Your task to perform on an android device: open app "VLC for Android" (install if not already installed) Image 0: 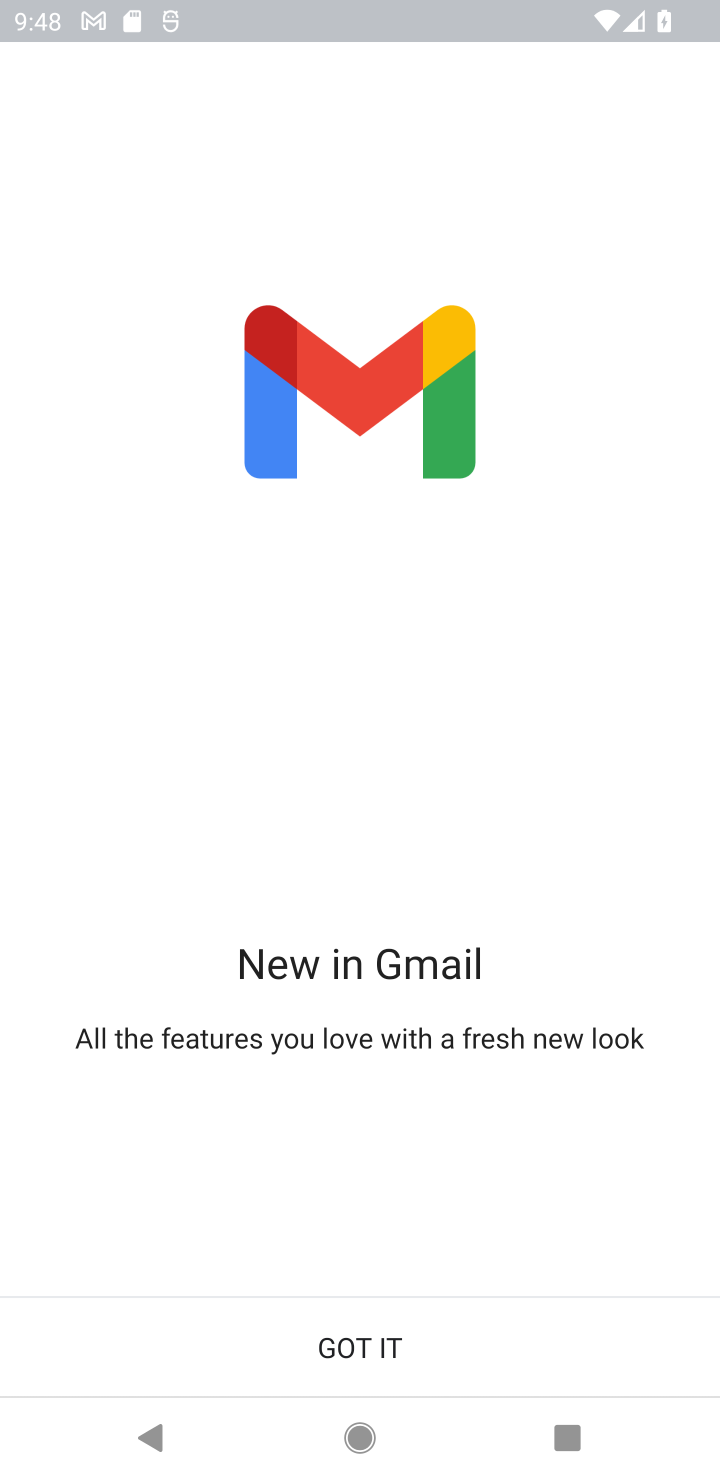
Step 0: press home button
Your task to perform on an android device: open app "VLC for Android" (install if not already installed) Image 1: 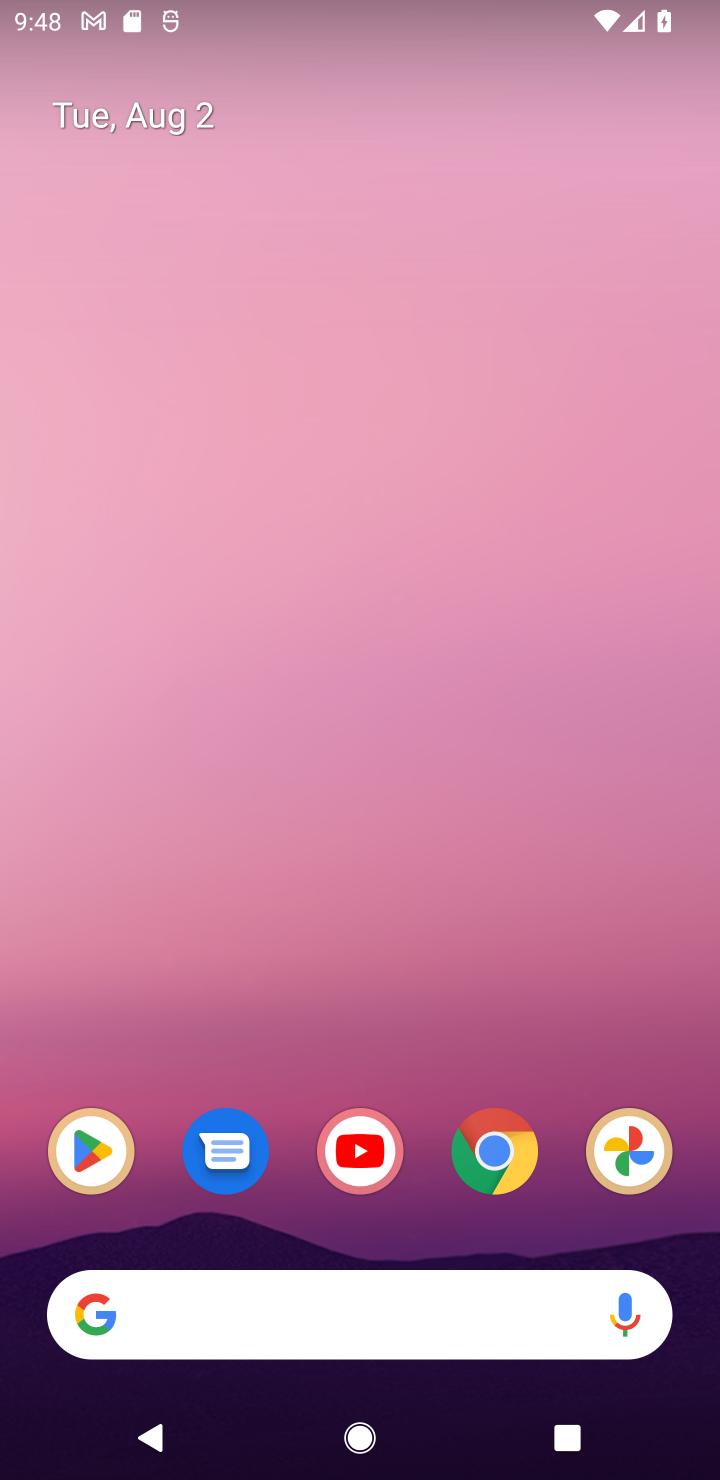
Step 1: drag from (371, 1304) to (371, 139)
Your task to perform on an android device: open app "VLC for Android" (install if not already installed) Image 2: 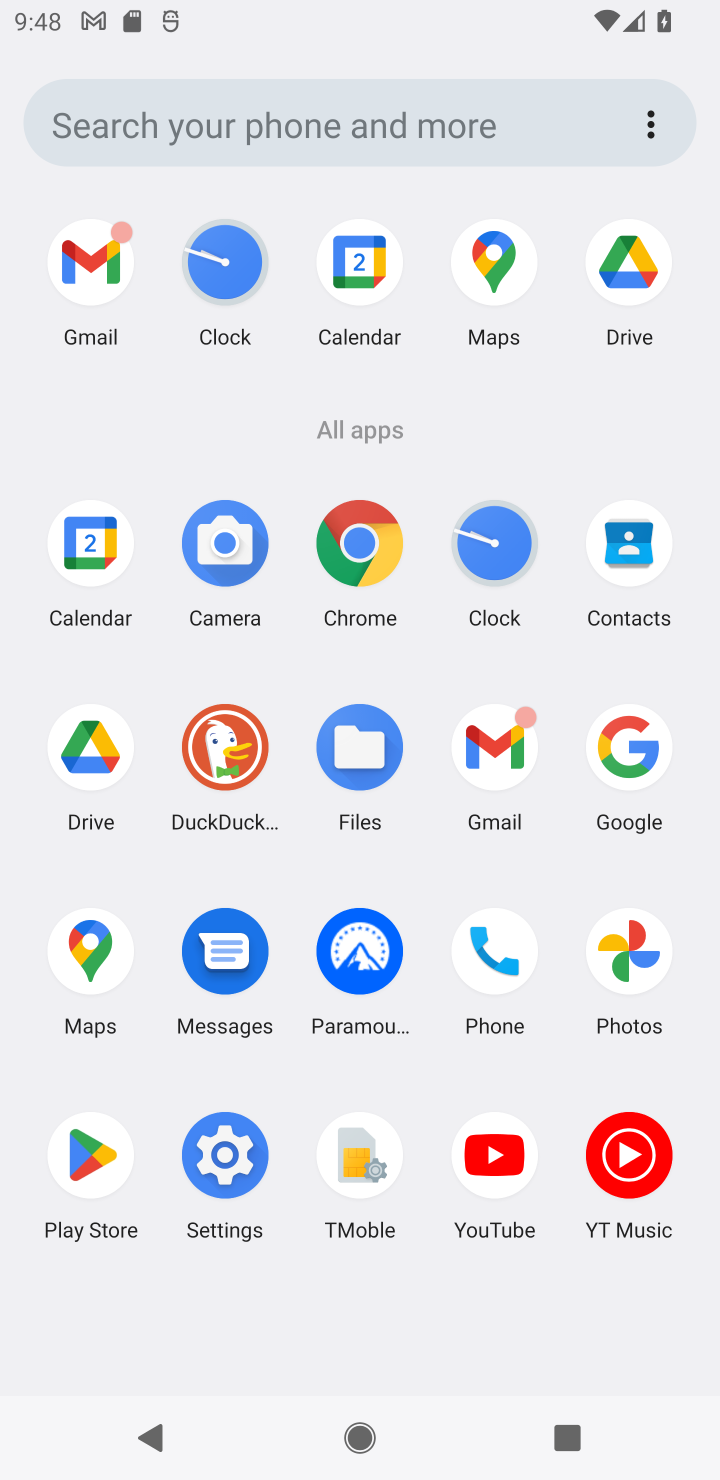
Step 2: click (109, 1151)
Your task to perform on an android device: open app "VLC for Android" (install if not already installed) Image 3: 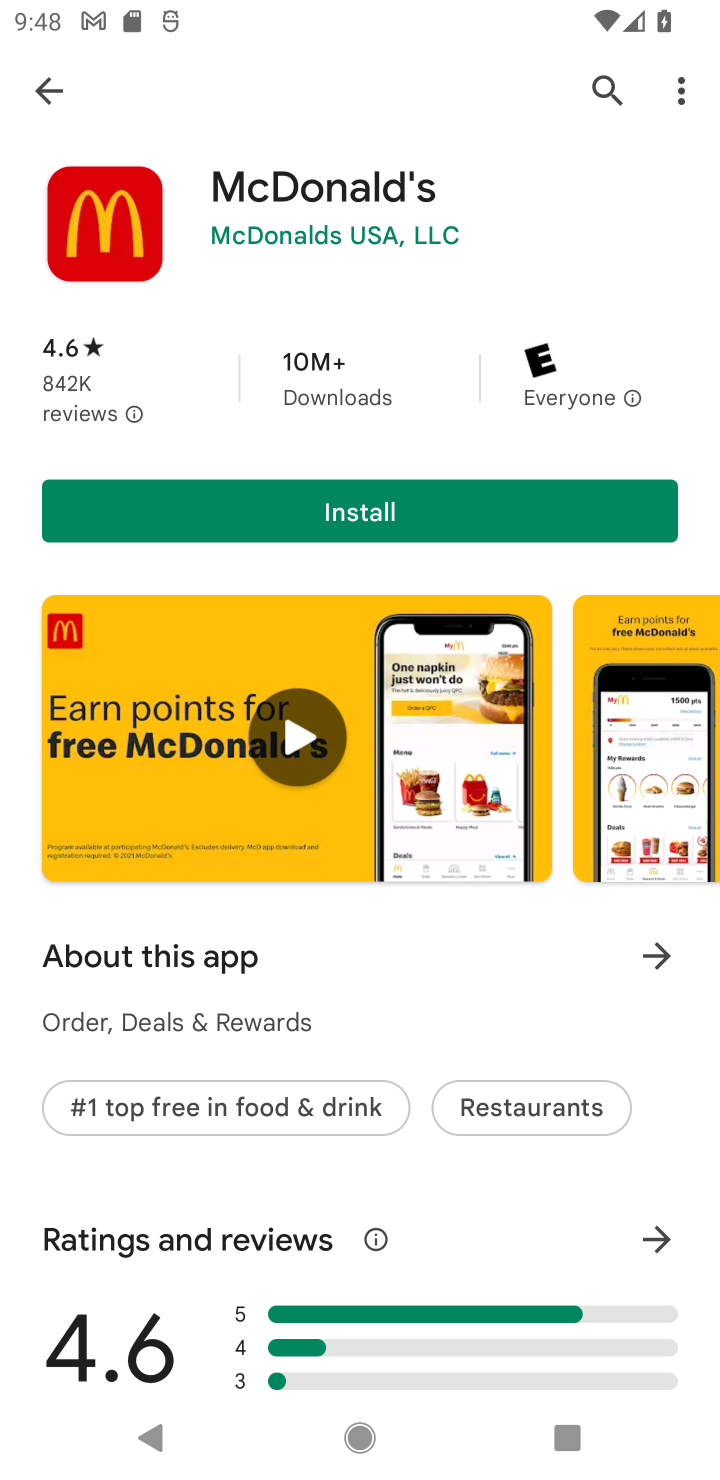
Step 3: click (73, 82)
Your task to perform on an android device: open app "VLC for Android" (install if not already installed) Image 4: 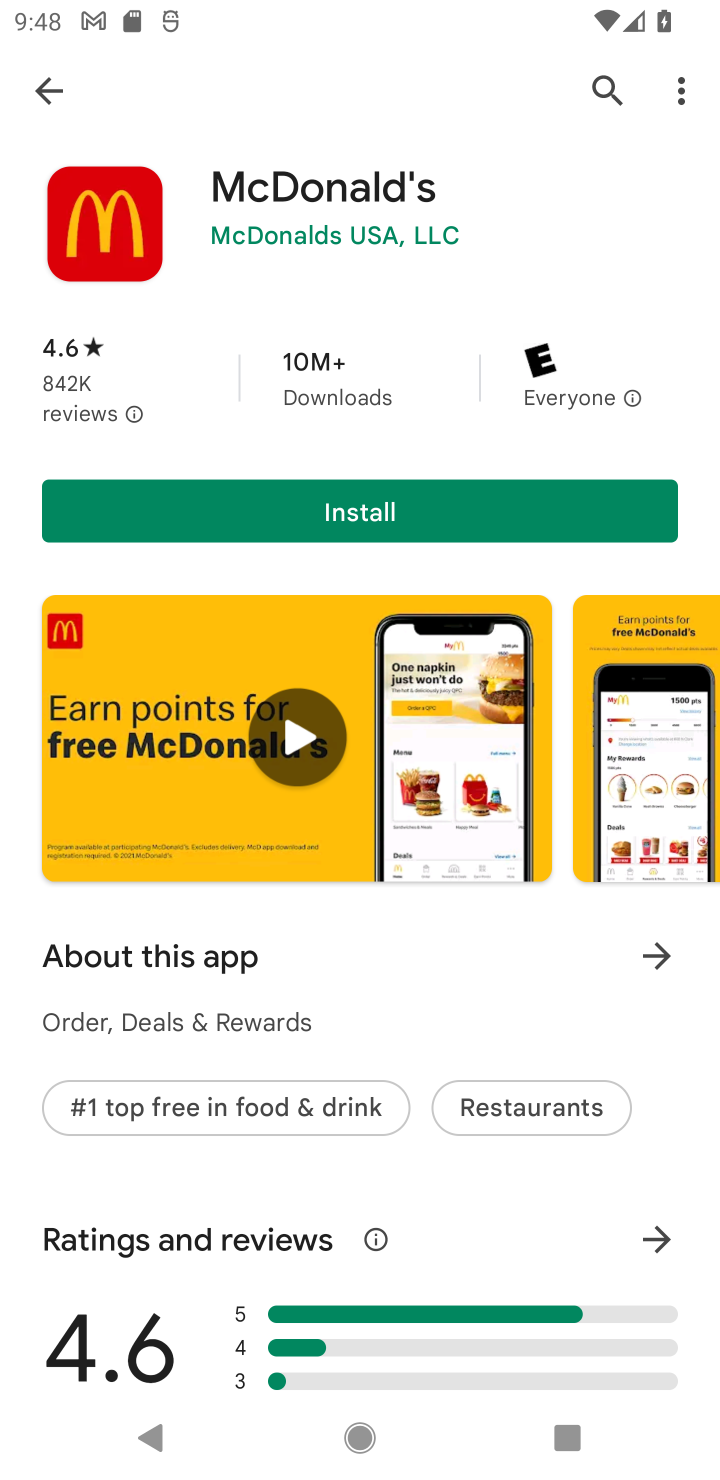
Step 4: click (46, 85)
Your task to perform on an android device: open app "VLC for Android" (install if not already installed) Image 5: 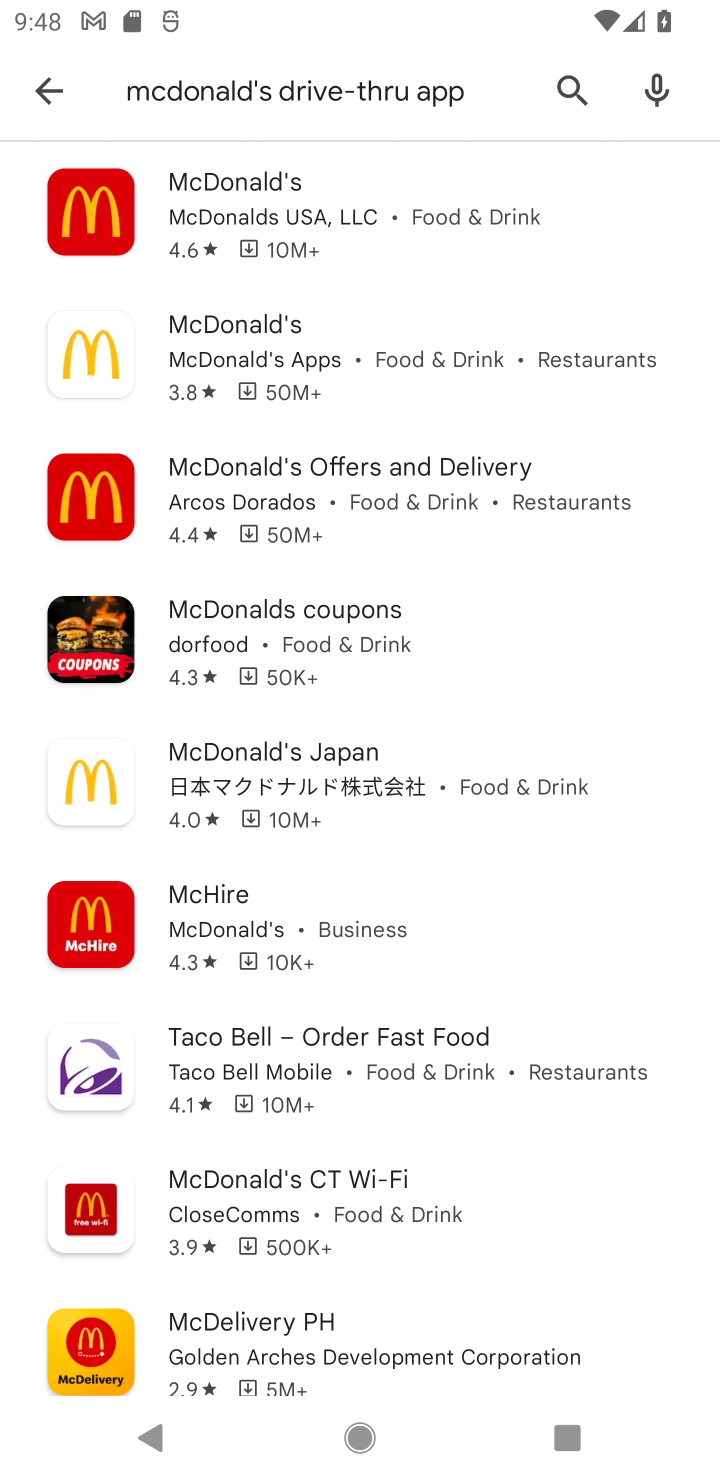
Step 5: click (580, 85)
Your task to perform on an android device: open app "VLC for Android" (install if not already installed) Image 6: 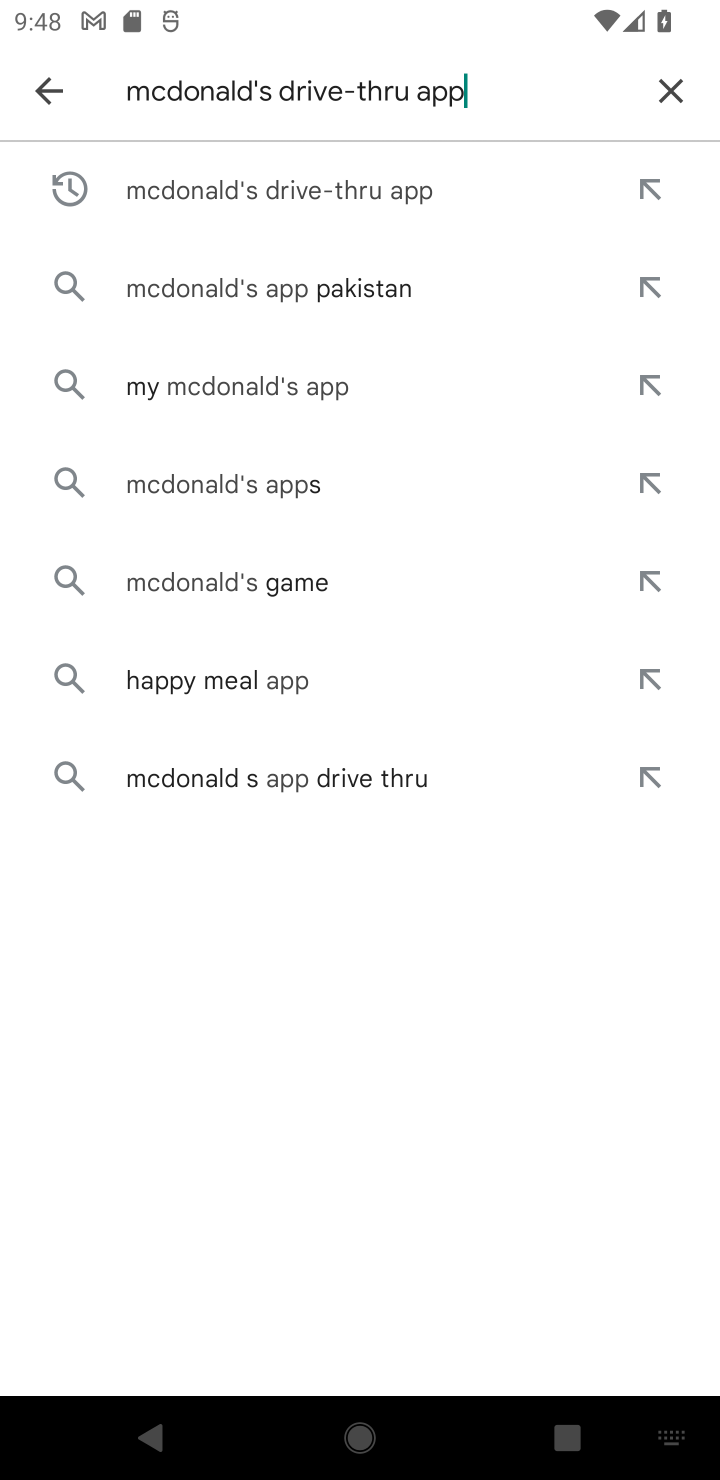
Step 6: click (674, 95)
Your task to perform on an android device: open app "VLC for Android" (install if not already installed) Image 7: 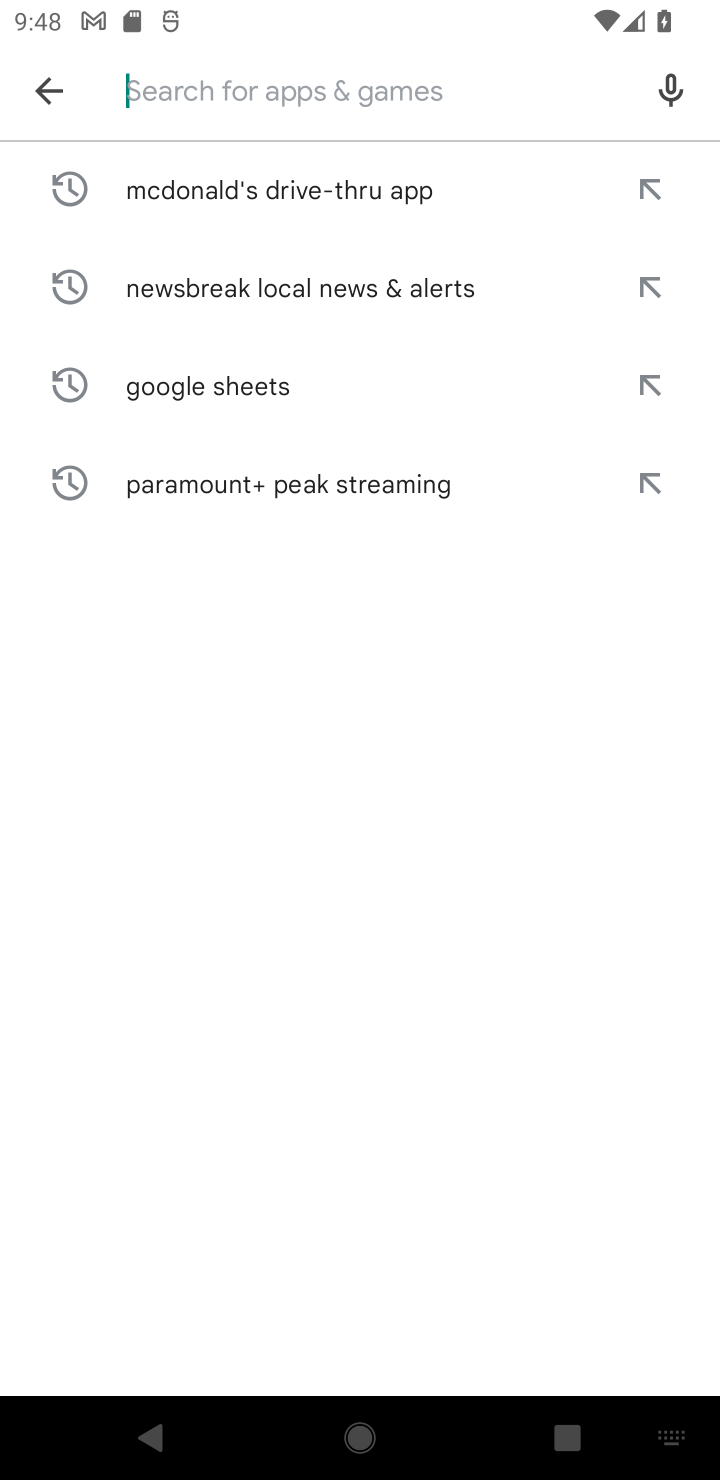
Step 7: type "VLC for Android"
Your task to perform on an android device: open app "VLC for Android" (install if not already installed) Image 8: 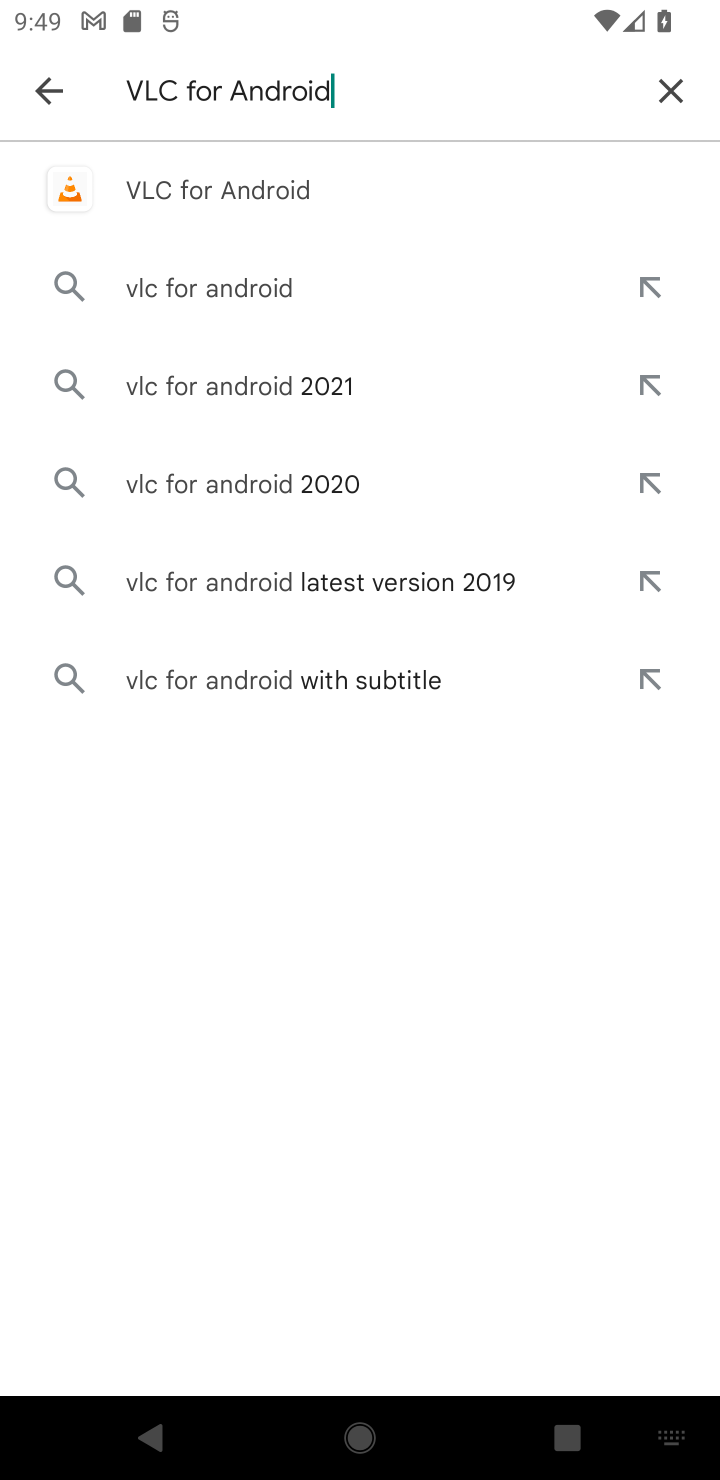
Step 8: click (166, 185)
Your task to perform on an android device: open app "VLC for Android" (install if not already installed) Image 9: 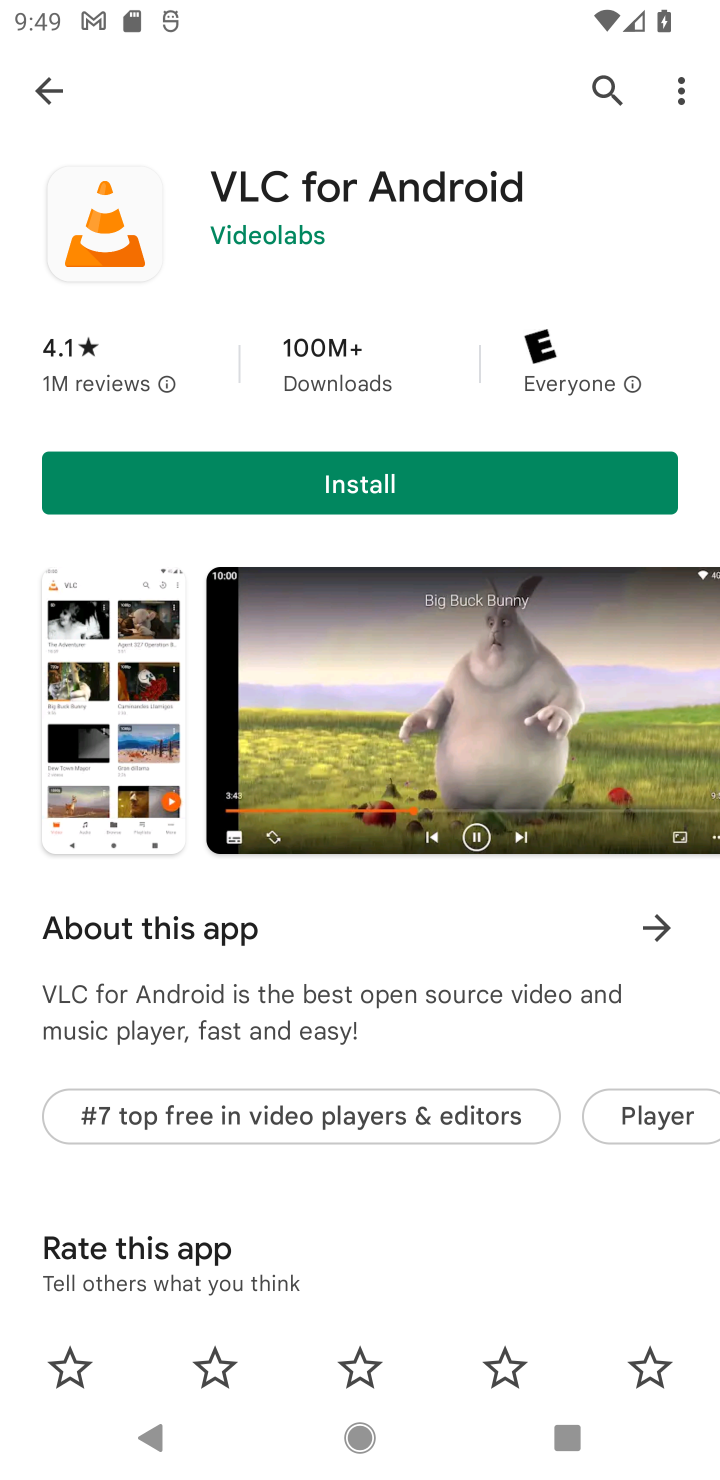
Step 9: task complete